Your task to perform on an android device: Do I have any events today? Image 0: 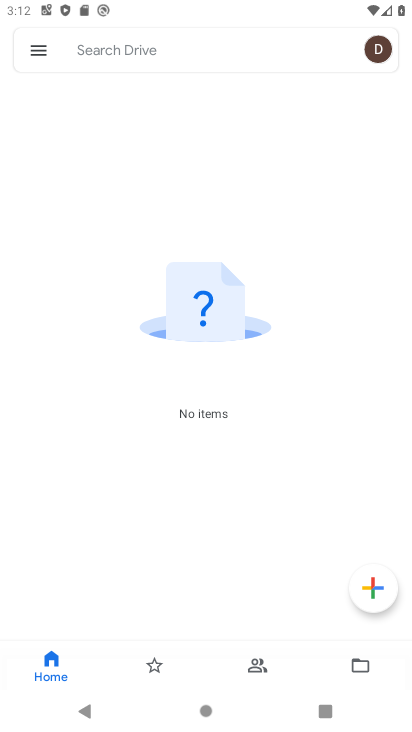
Step 0: press home button
Your task to perform on an android device: Do I have any events today? Image 1: 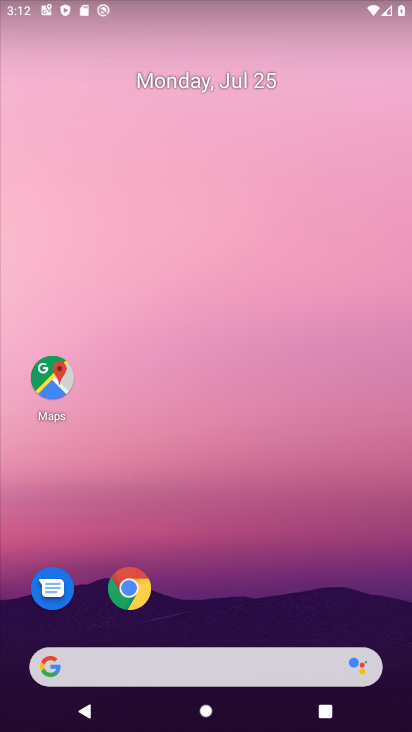
Step 1: drag from (172, 636) to (168, 250)
Your task to perform on an android device: Do I have any events today? Image 2: 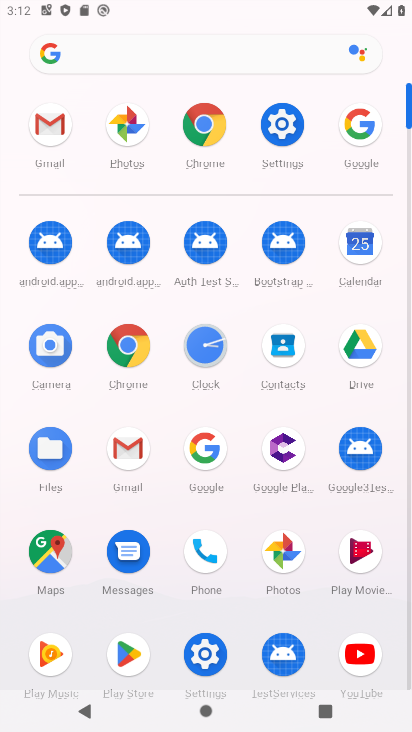
Step 2: click (349, 264)
Your task to perform on an android device: Do I have any events today? Image 3: 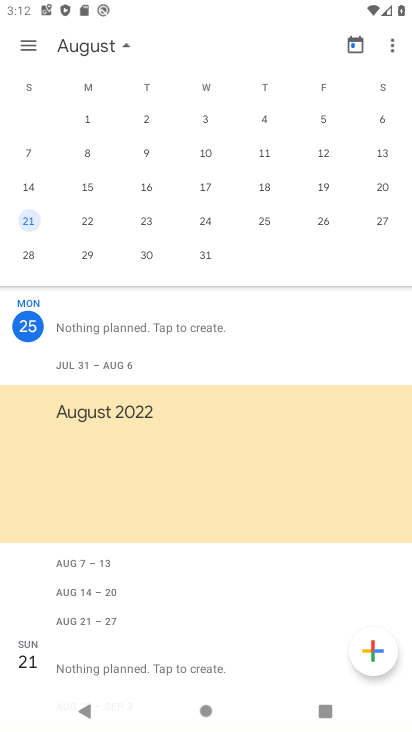
Step 3: task complete